Your task to perform on an android device: change timer sound Image 0: 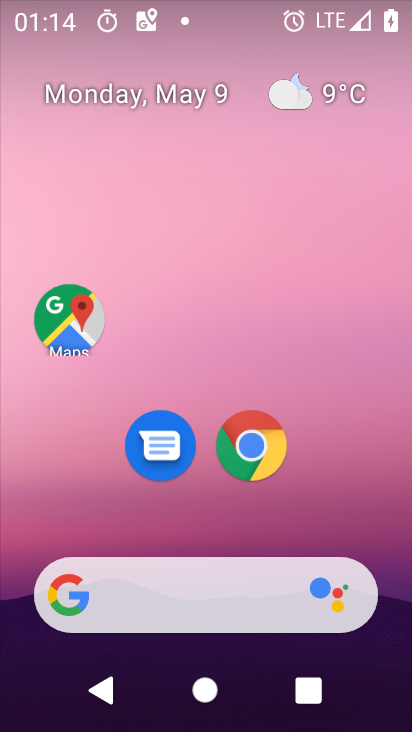
Step 0: drag from (365, 548) to (401, 6)
Your task to perform on an android device: change timer sound Image 1: 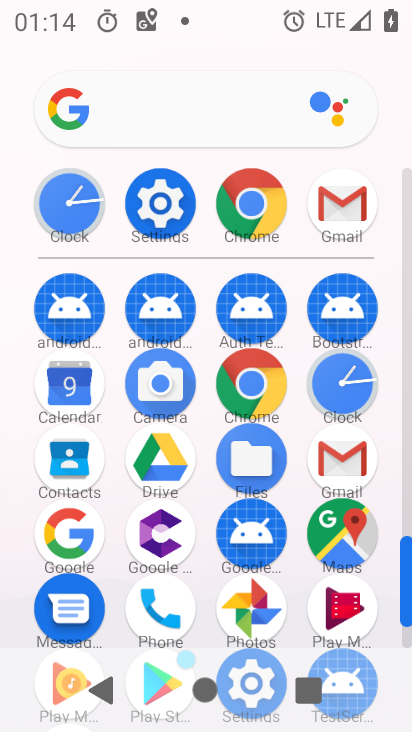
Step 1: click (68, 225)
Your task to perform on an android device: change timer sound Image 2: 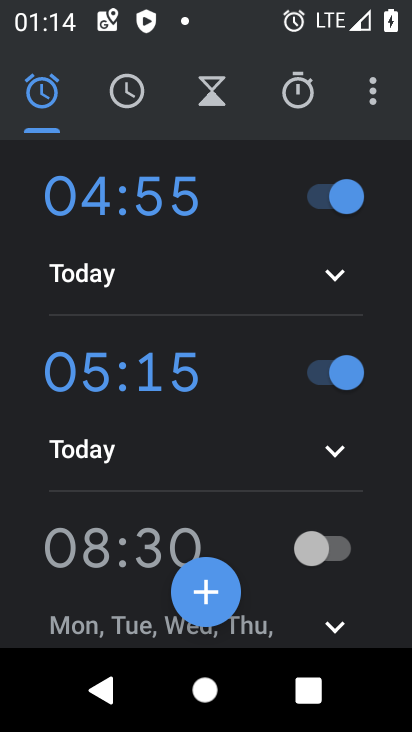
Step 2: click (372, 96)
Your task to perform on an android device: change timer sound Image 3: 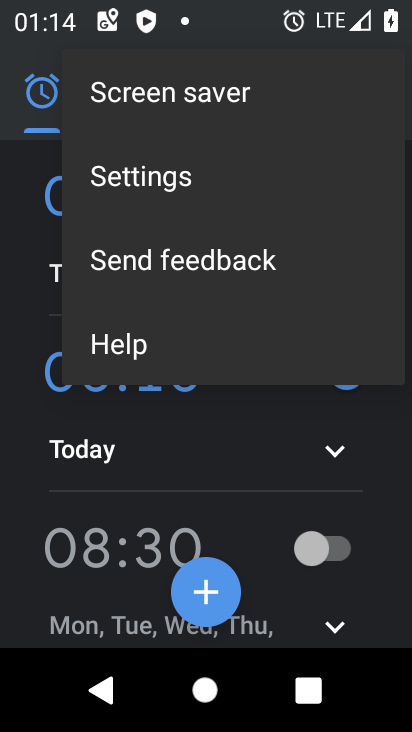
Step 3: click (134, 188)
Your task to perform on an android device: change timer sound Image 4: 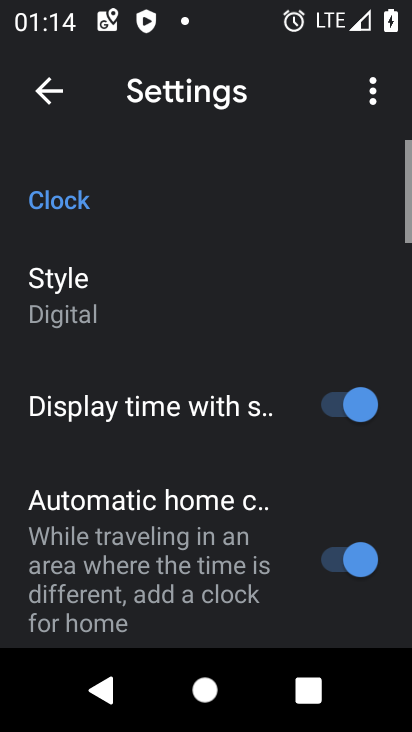
Step 4: drag from (145, 517) to (134, 189)
Your task to perform on an android device: change timer sound Image 5: 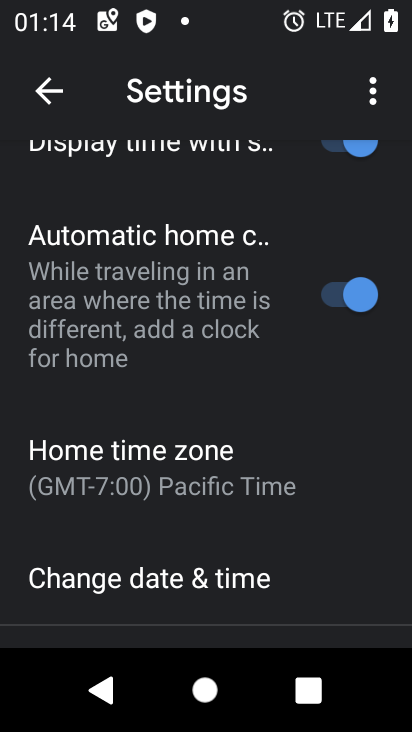
Step 5: drag from (147, 545) to (129, 190)
Your task to perform on an android device: change timer sound Image 6: 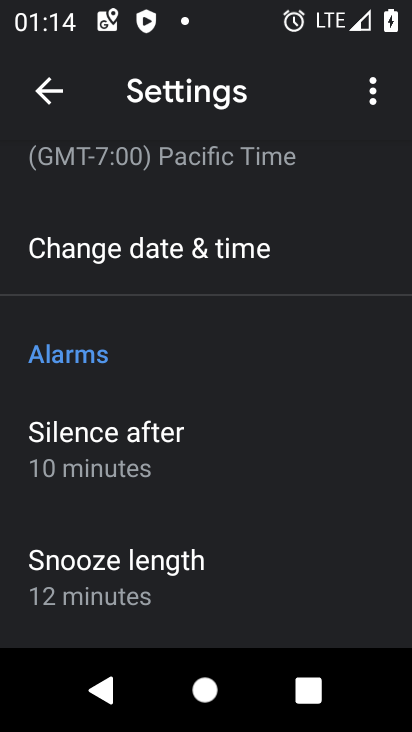
Step 6: drag from (128, 503) to (135, 189)
Your task to perform on an android device: change timer sound Image 7: 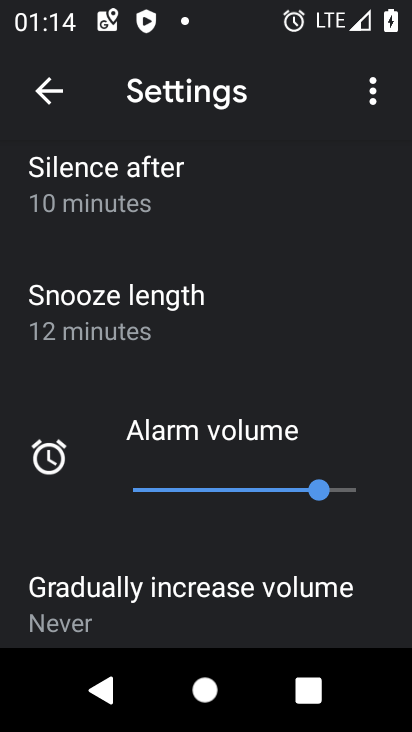
Step 7: drag from (127, 491) to (133, 235)
Your task to perform on an android device: change timer sound Image 8: 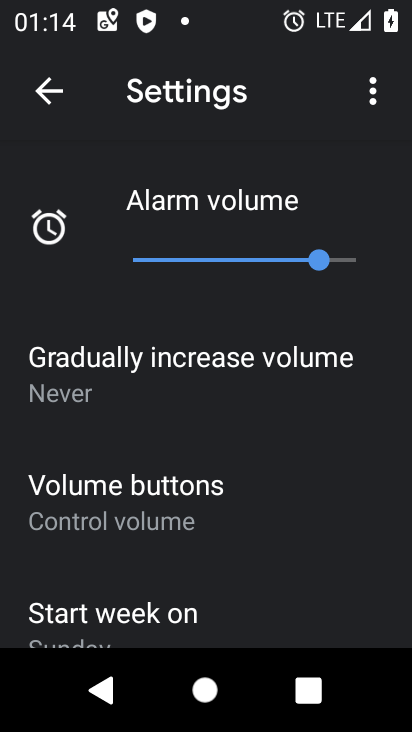
Step 8: drag from (128, 550) to (126, 269)
Your task to perform on an android device: change timer sound Image 9: 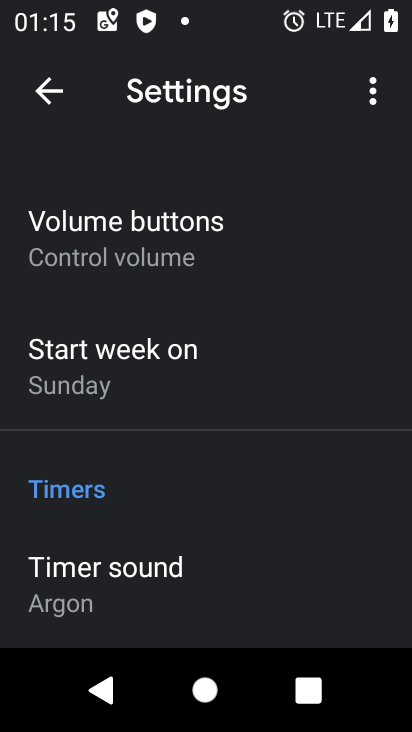
Step 9: drag from (143, 500) to (137, 278)
Your task to perform on an android device: change timer sound Image 10: 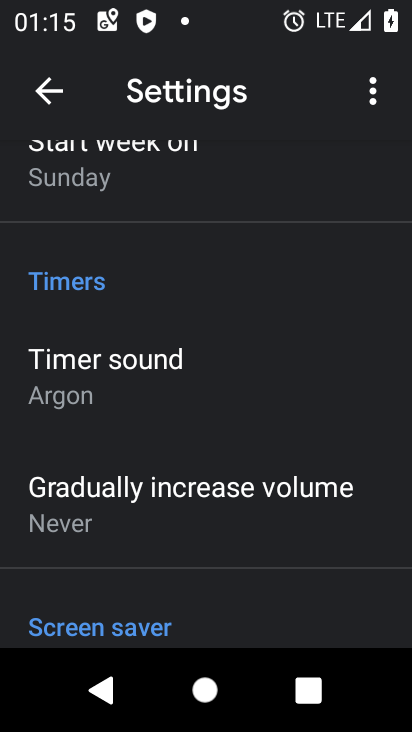
Step 10: click (79, 394)
Your task to perform on an android device: change timer sound Image 11: 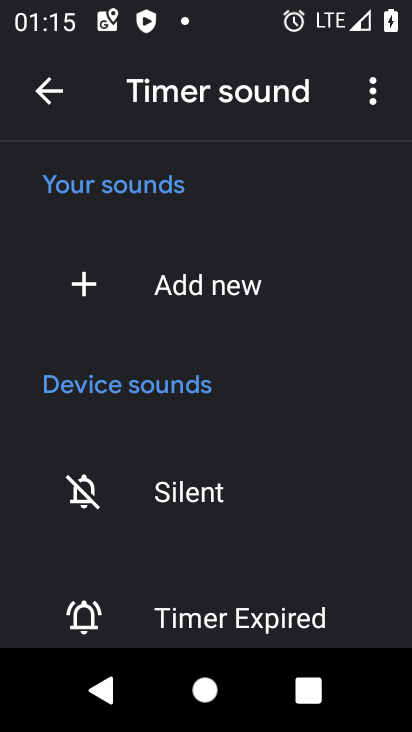
Step 11: drag from (299, 507) to (305, 281)
Your task to perform on an android device: change timer sound Image 12: 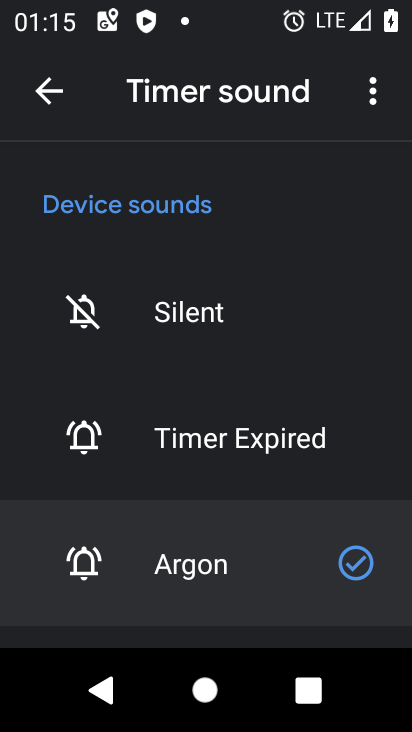
Step 12: drag from (306, 528) to (298, 263)
Your task to perform on an android device: change timer sound Image 13: 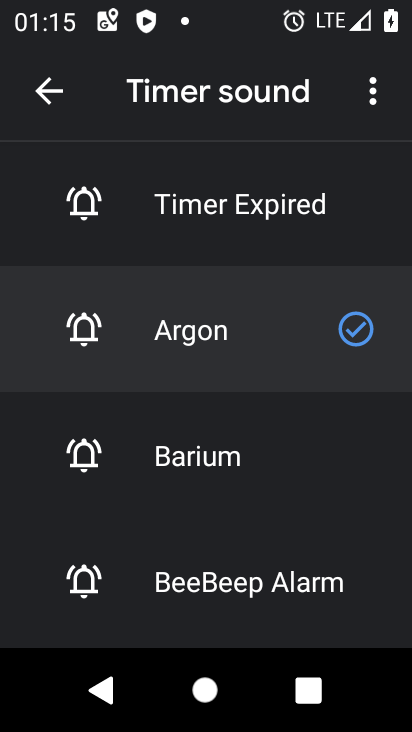
Step 13: click (162, 464)
Your task to perform on an android device: change timer sound Image 14: 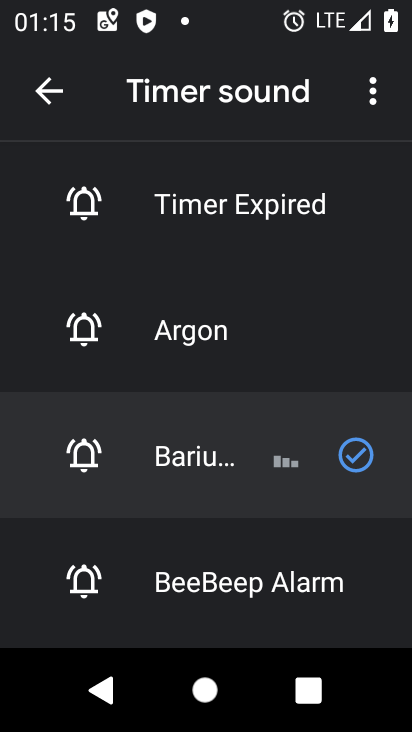
Step 14: task complete